Your task to perform on an android device: Open internet settings Image 0: 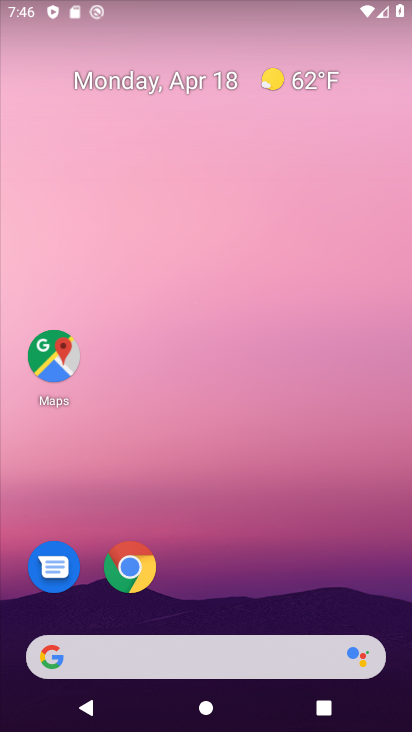
Step 0: drag from (260, 366) to (242, 116)
Your task to perform on an android device: Open internet settings Image 1: 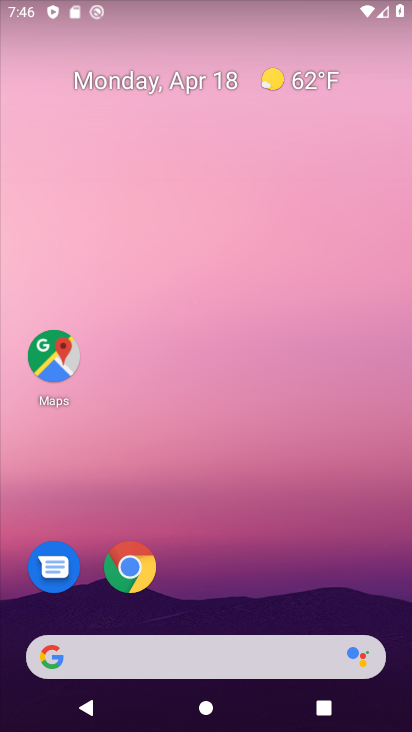
Step 1: drag from (247, 480) to (228, 248)
Your task to perform on an android device: Open internet settings Image 2: 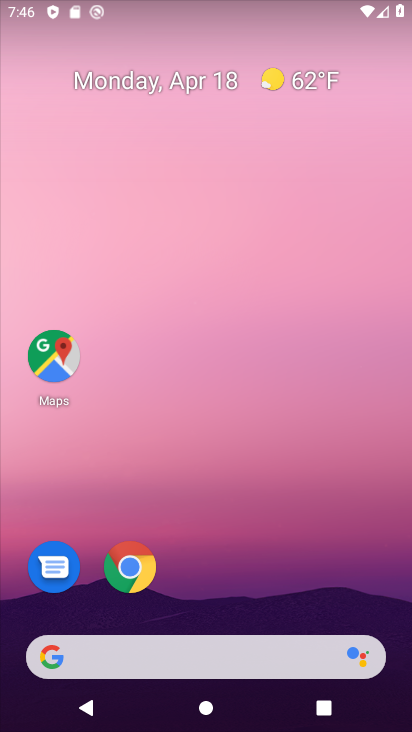
Step 2: drag from (263, 514) to (150, 15)
Your task to perform on an android device: Open internet settings Image 3: 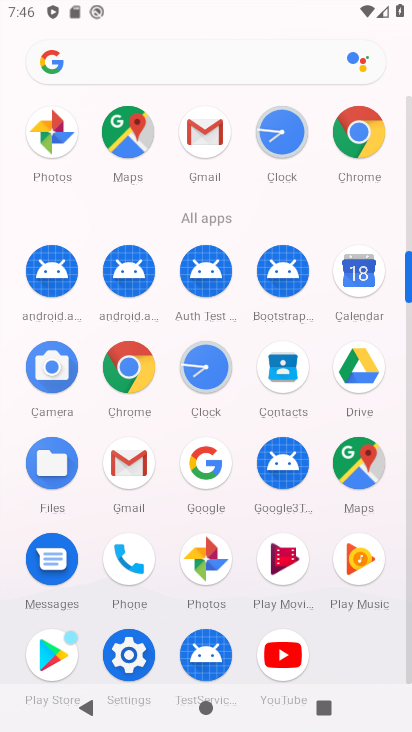
Step 3: click (118, 653)
Your task to perform on an android device: Open internet settings Image 4: 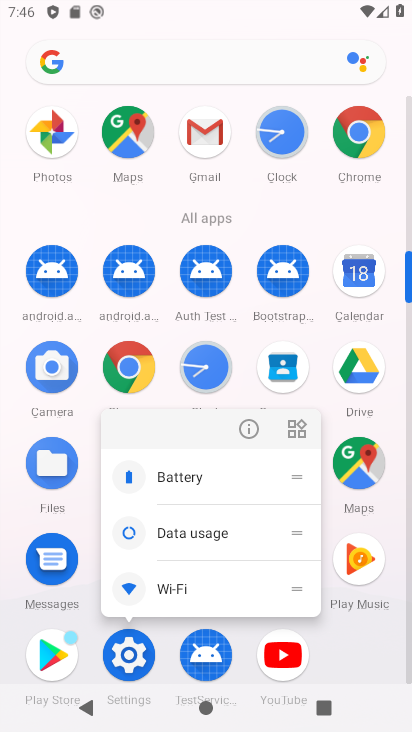
Step 4: click (120, 651)
Your task to perform on an android device: Open internet settings Image 5: 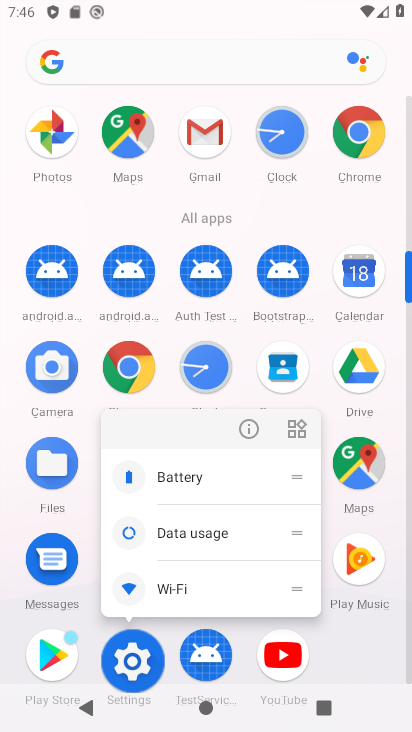
Step 5: click (125, 656)
Your task to perform on an android device: Open internet settings Image 6: 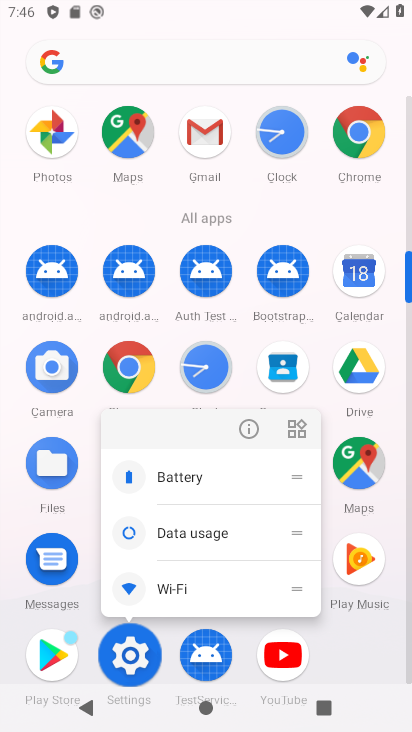
Step 6: click (125, 656)
Your task to perform on an android device: Open internet settings Image 7: 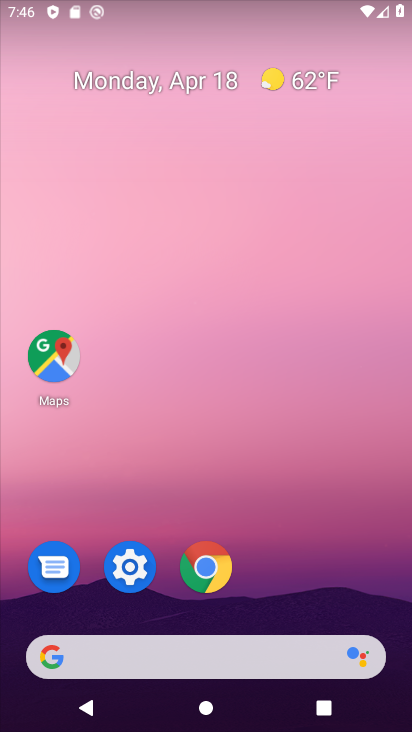
Step 7: drag from (334, 582) to (342, 128)
Your task to perform on an android device: Open internet settings Image 8: 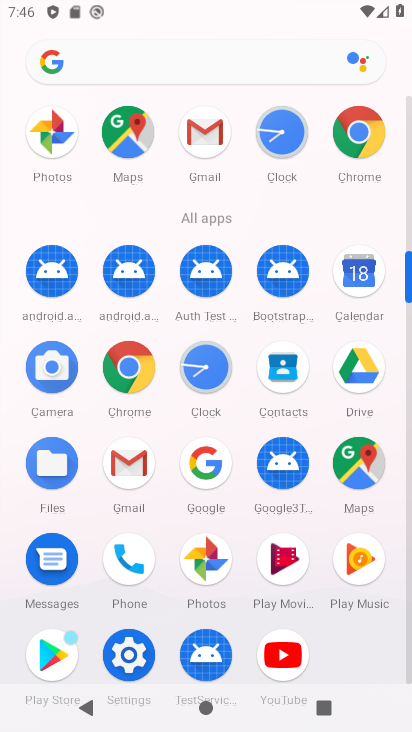
Step 8: click (121, 655)
Your task to perform on an android device: Open internet settings Image 9: 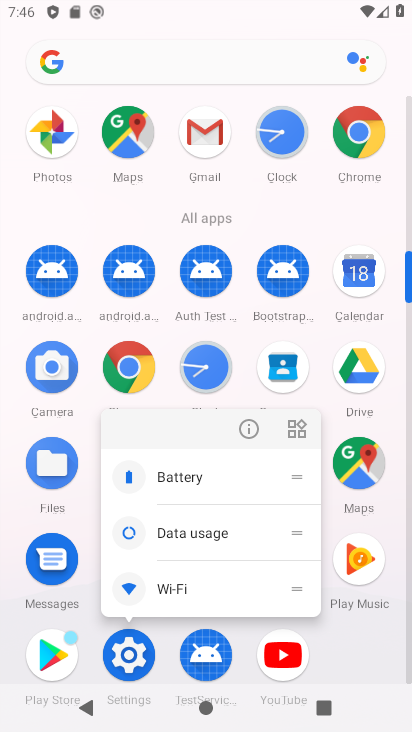
Step 9: click (121, 655)
Your task to perform on an android device: Open internet settings Image 10: 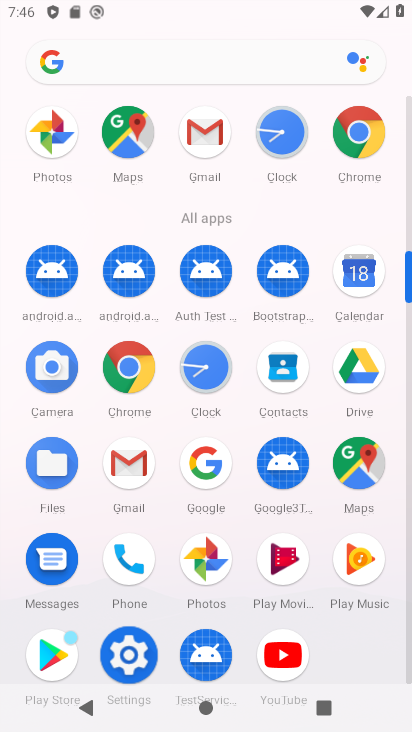
Step 10: click (121, 654)
Your task to perform on an android device: Open internet settings Image 11: 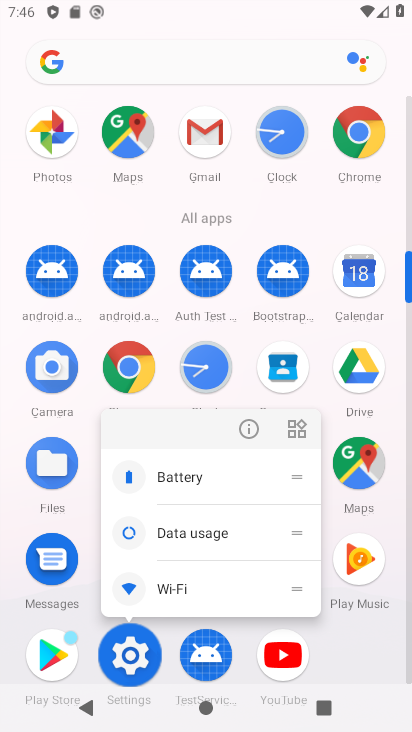
Step 11: click (122, 652)
Your task to perform on an android device: Open internet settings Image 12: 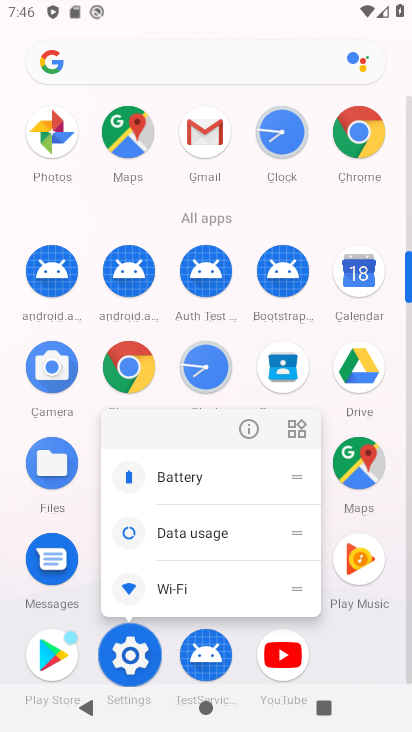
Step 12: click (122, 652)
Your task to perform on an android device: Open internet settings Image 13: 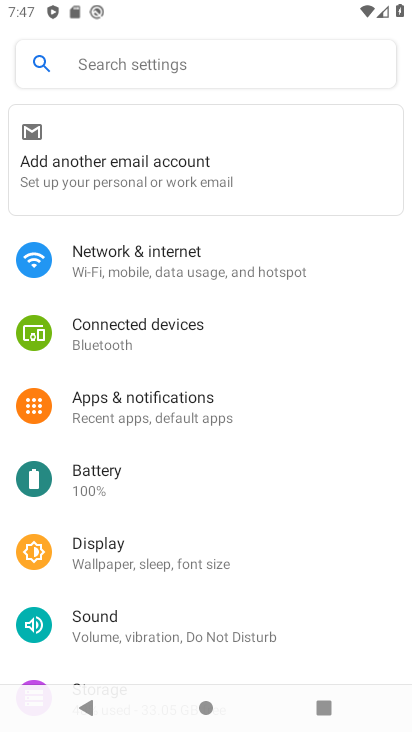
Step 13: click (122, 652)
Your task to perform on an android device: Open internet settings Image 14: 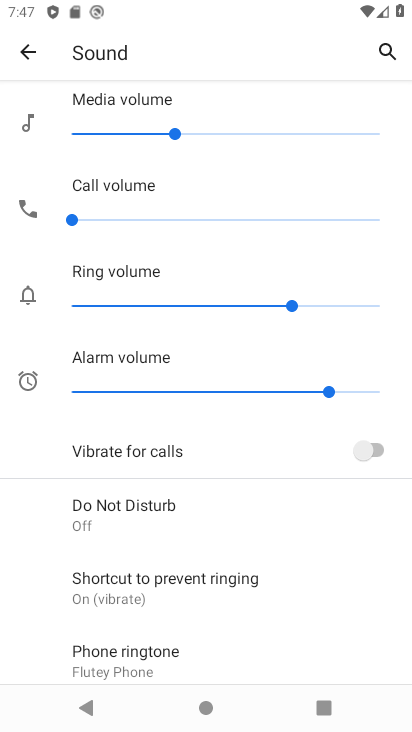
Step 14: click (29, 53)
Your task to perform on an android device: Open internet settings Image 15: 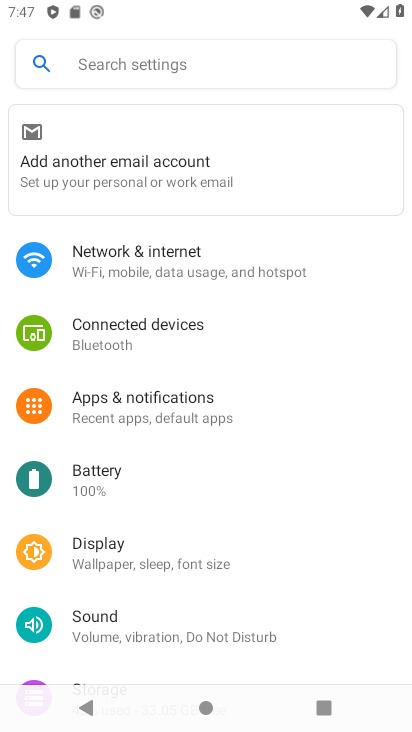
Step 15: click (134, 270)
Your task to perform on an android device: Open internet settings Image 16: 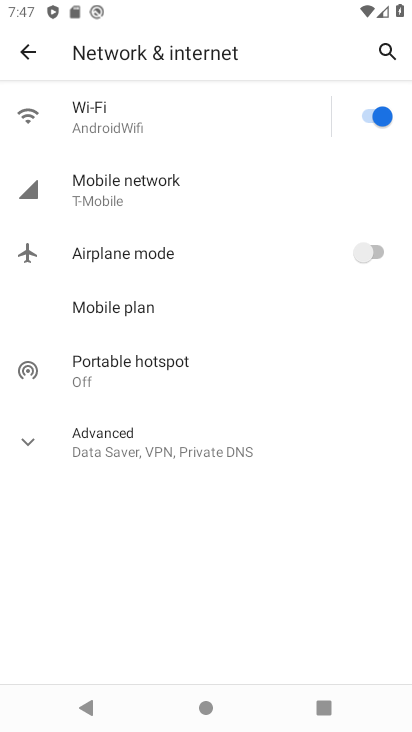
Step 16: task complete